Your task to perform on an android device: turn on priority inbox in the gmail app Image 0: 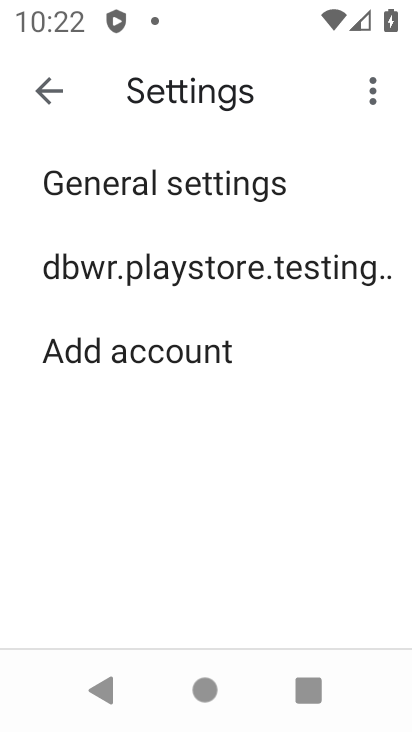
Step 0: click (295, 270)
Your task to perform on an android device: turn on priority inbox in the gmail app Image 1: 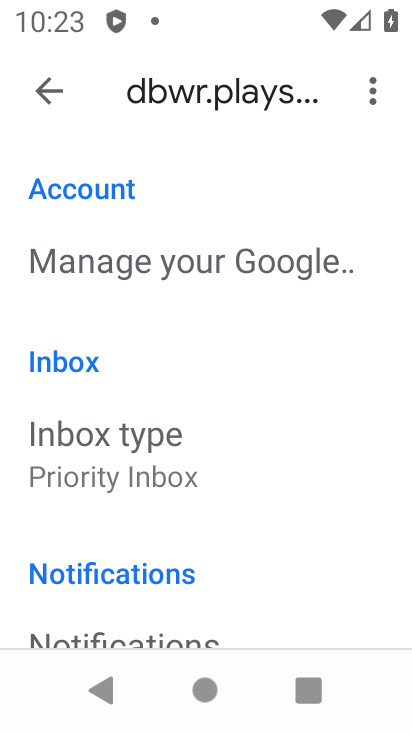
Step 1: task complete